Your task to perform on an android device: check battery use Image 0: 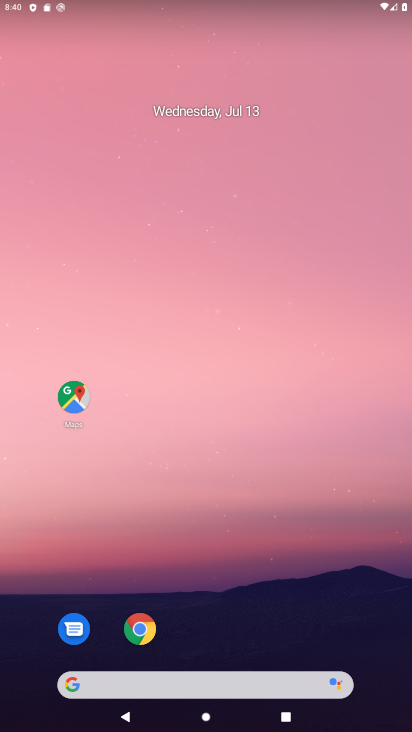
Step 0: drag from (296, 596) to (400, 107)
Your task to perform on an android device: check battery use Image 1: 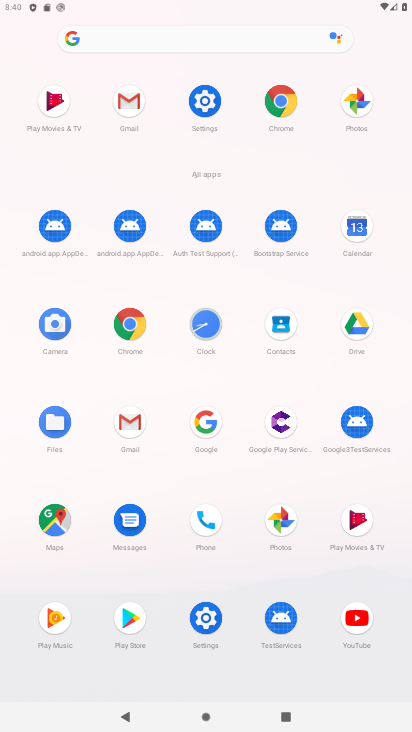
Step 1: click (208, 604)
Your task to perform on an android device: check battery use Image 2: 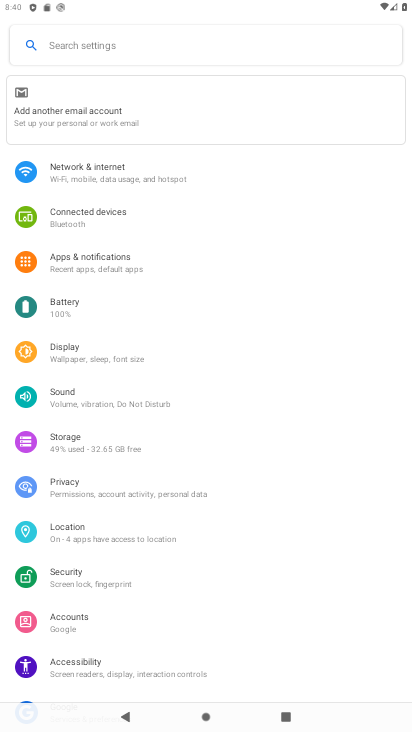
Step 2: drag from (97, 591) to (106, 487)
Your task to perform on an android device: check battery use Image 3: 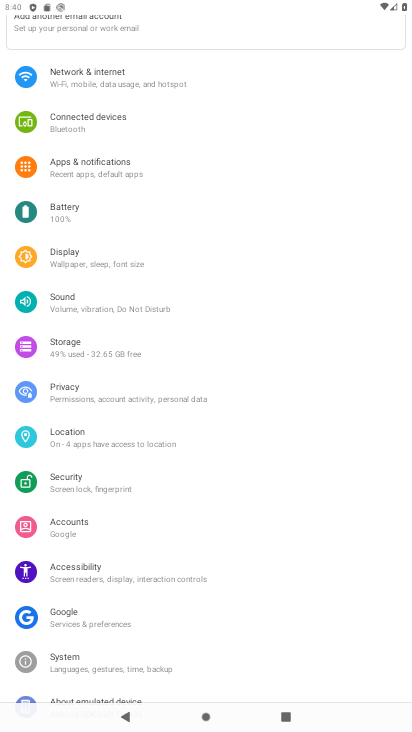
Step 3: click (67, 205)
Your task to perform on an android device: check battery use Image 4: 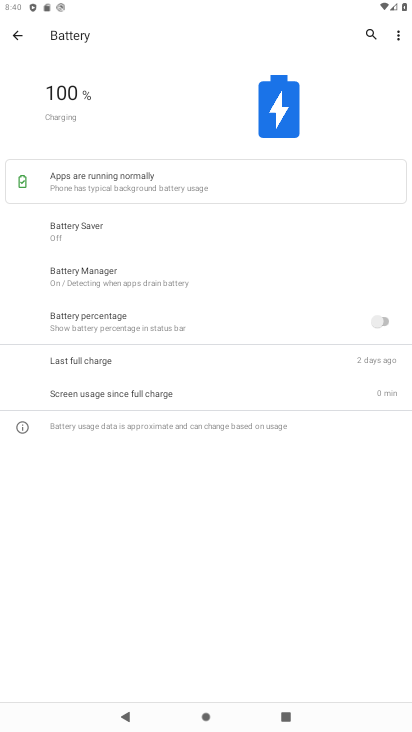
Step 4: task complete